Your task to perform on an android device: Turn on the flashlight Image 0: 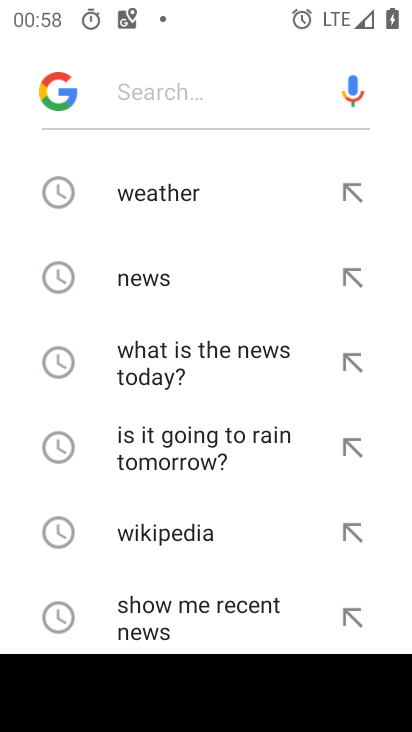
Step 0: press home button
Your task to perform on an android device: Turn on the flashlight Image 1: 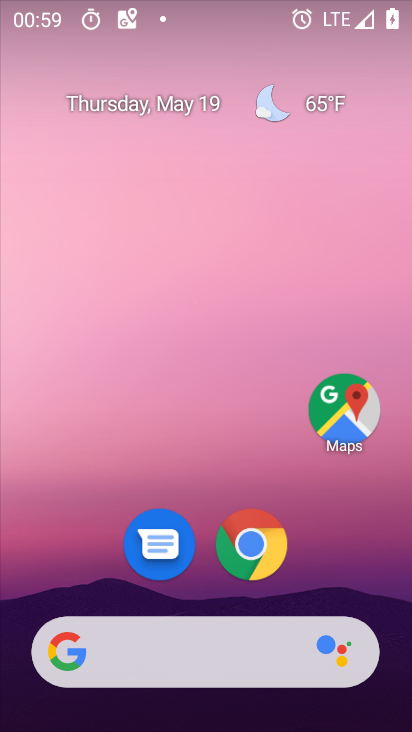
Step 1: drag from (235, 0) to (203, 448)
Your task to perform on an android device: Turn on the flashlight Image 2: 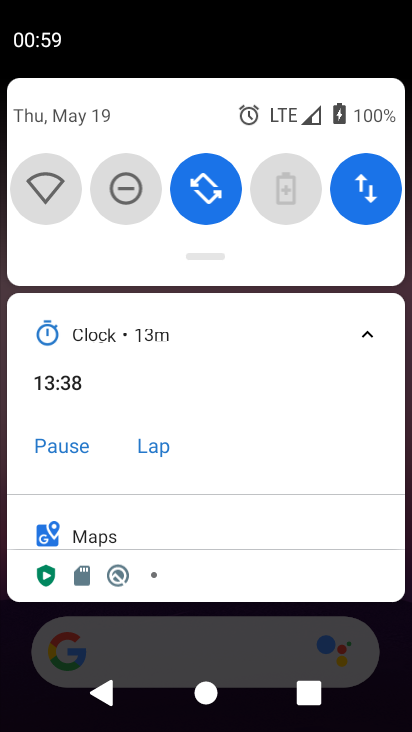
Step 2: drag from (223, 103) to (217, 399)
Your task to perform on an android device: Turn on the flashlight Image 3: 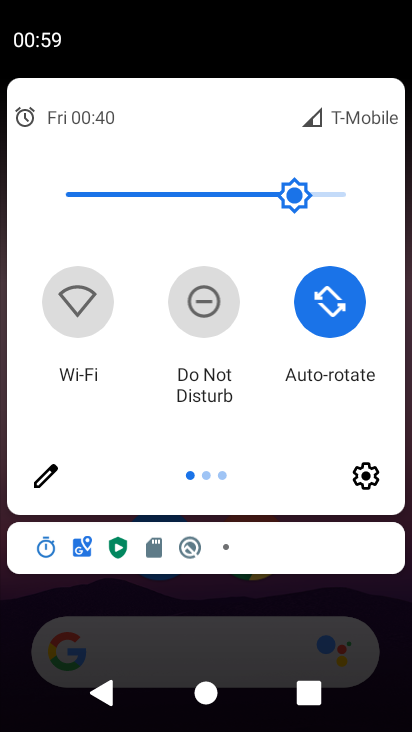
Step 3: click (38, 470)
Your task to perform on an android device: Turn on the flashlight Image 4: 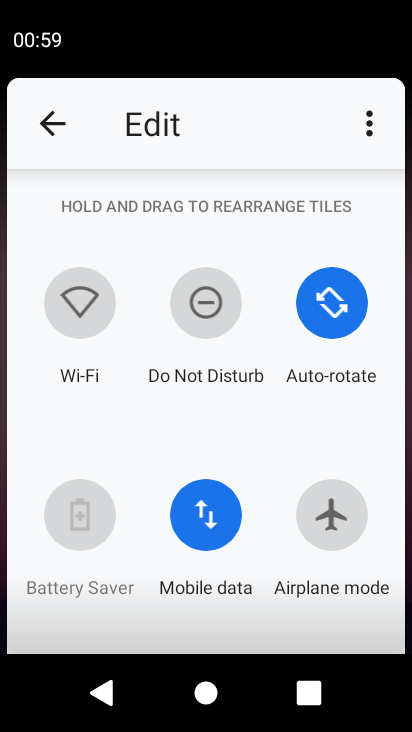
Step 4: task complete